Your task to perform on an android device: Open battery settings Image 0: 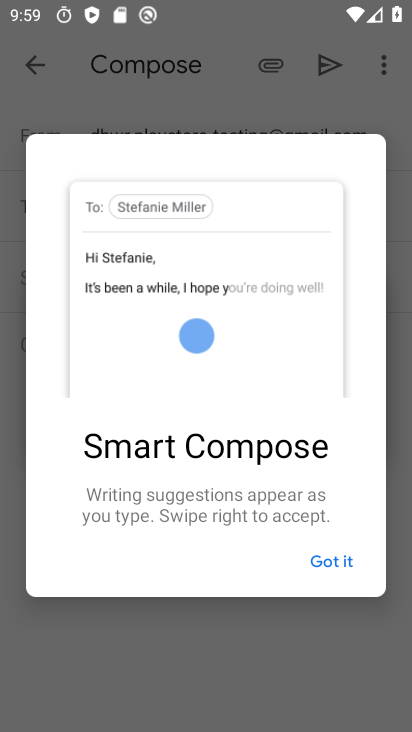
Step 0: press home button
Your task to perform on an android device: Open battery settings Image 1: 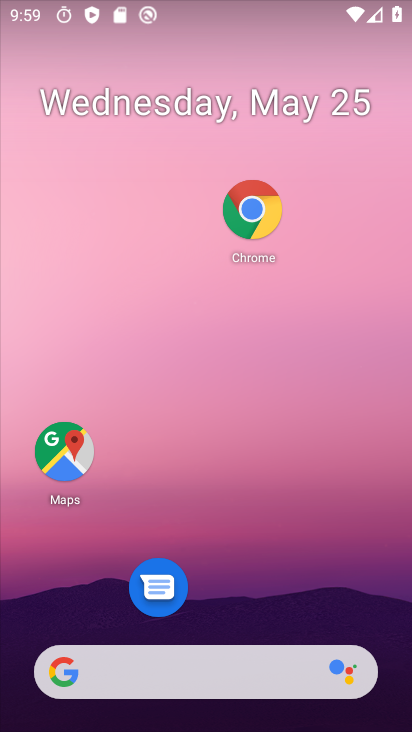
Step 1: drag from (219, 567) to (242, 1)
Your task to perform on an android device: Open battery settings Image 2: 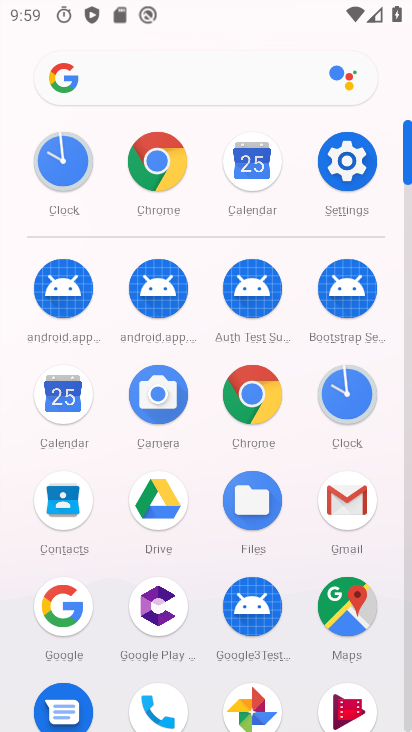
Step 2: click (351, 180)
Your task to perform on an android device: Open battery settings Image 3: 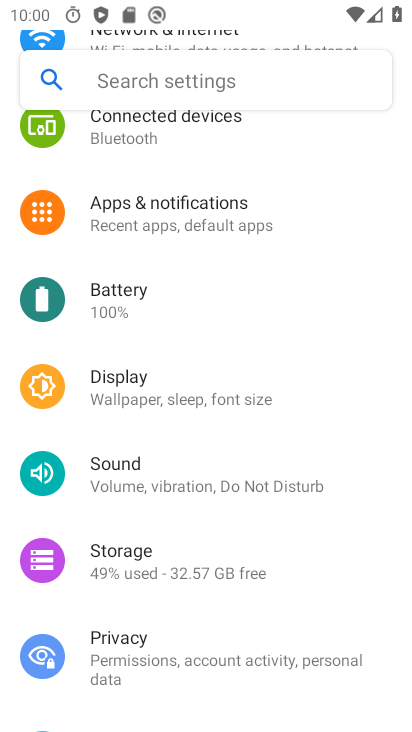
Step 3: click (146, 308)
Your task to perform on an android device: Open battery settings Image 4: 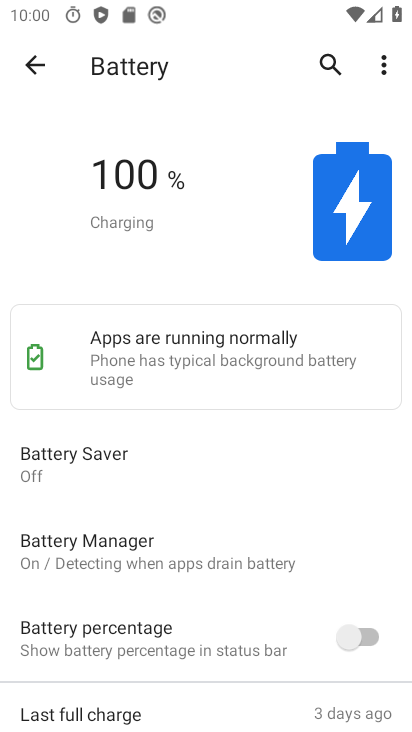
Step 4: task complete